Your task to perform on an android device: add a contact Image 0: 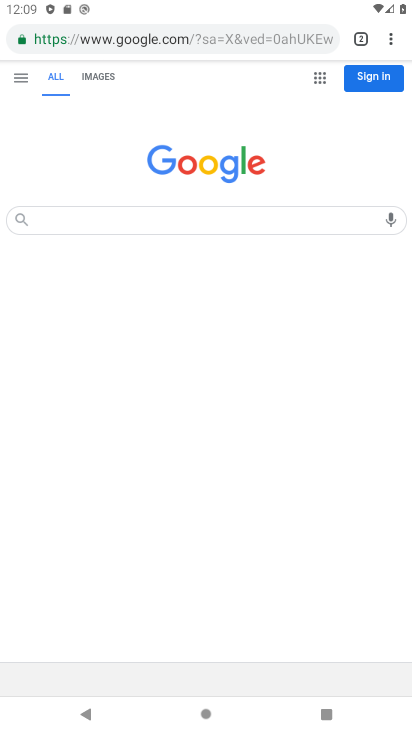
Step 0: press back button
Your task to perform on an android device: add a contact Image 1: 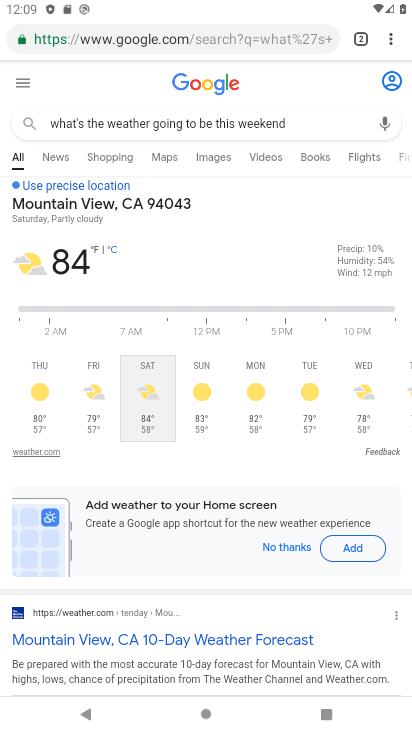
Step 1: press home button
Your task to perform on an android device: add a contact Image 2: 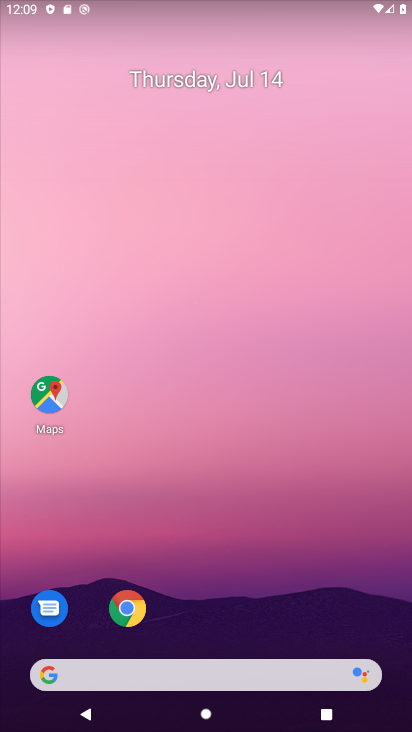
Step 2: drag from (251, 572) to (209, 238)
Your task to perform on an android device: add a contact Image 3: 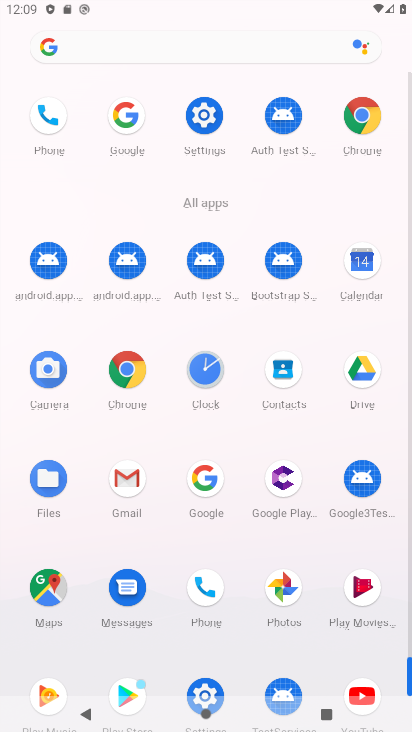
Step 3: click (279, 362)
Your task to perform on an android device: add a contact Image 4: 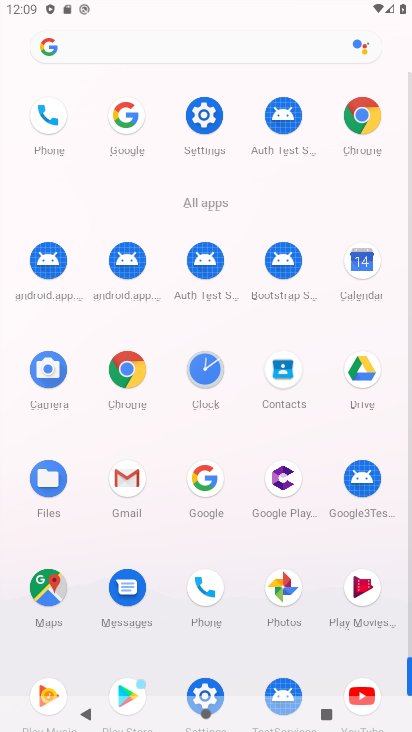
Step 4: click (281, 362)
Your task to perform on an android device: add a contact Image 5: 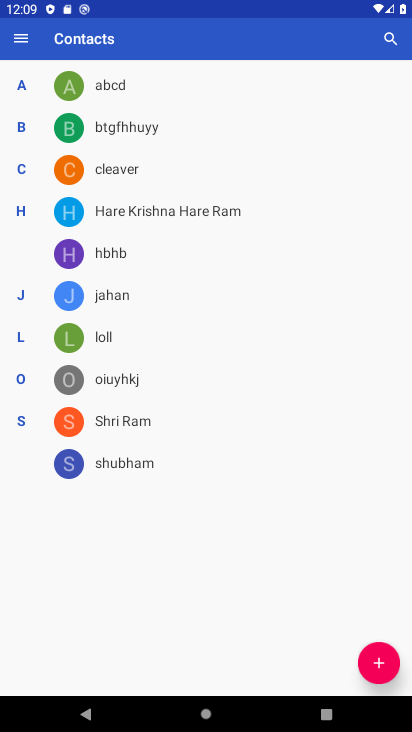
Step 5: click (383, 663)
Your task to perform on an android device: add a contact Image 6: 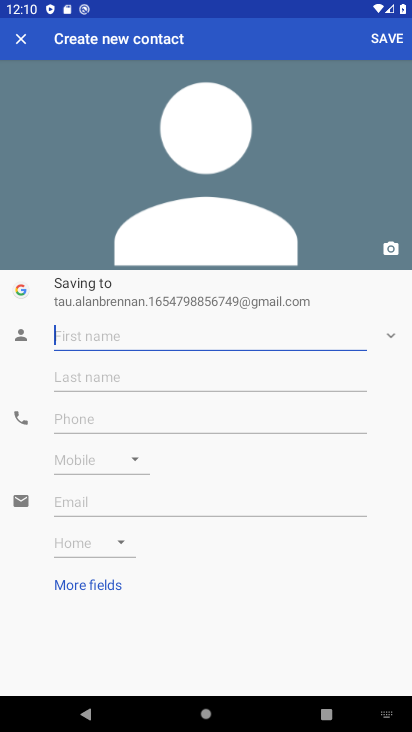
Step 6: type "bvdhbkjhzdb"
Your task to perform on an android device: add a contact Image 7: 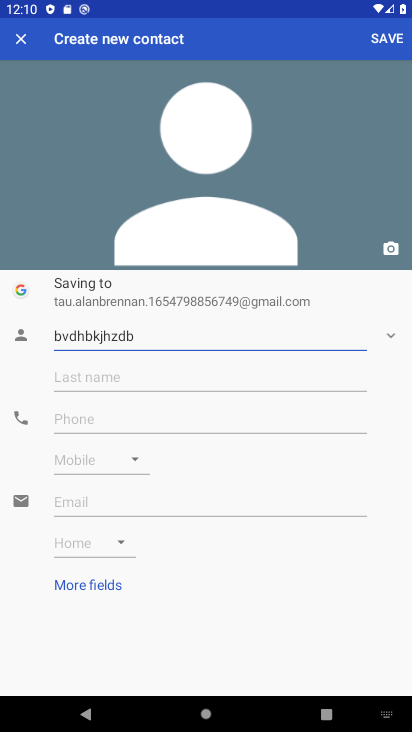
Step 7: click (80, 416)
Your task to perform on an android device: add a contact Image 8: 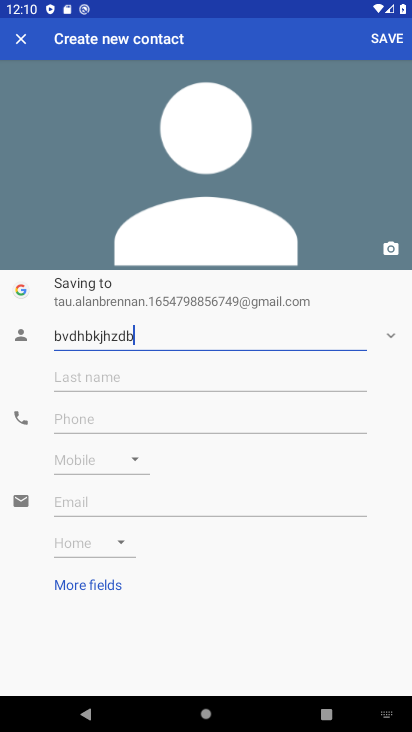
Step 8: click (80, 416)
Your task to perform on an android device: add a contact Image 9: 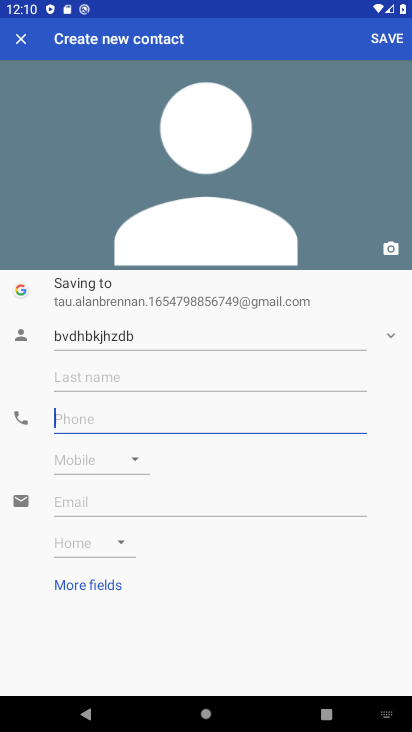
Step 9: click (80, 416)
Your task to perform on an android device: add a contact Image 10: 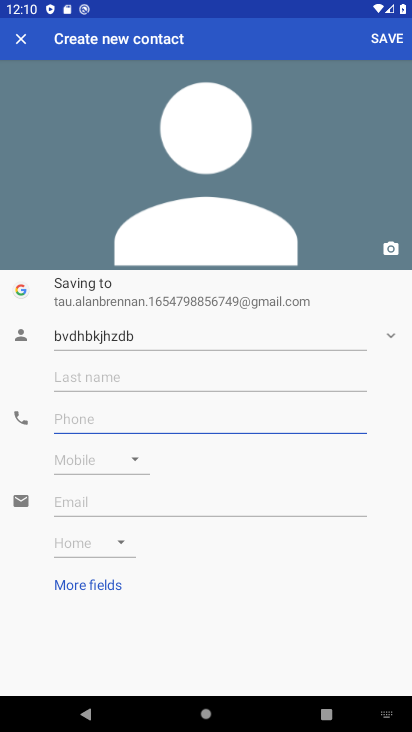
Step 10: click (80, 416)
Your task to perform on an android device: add a contact Image 11: 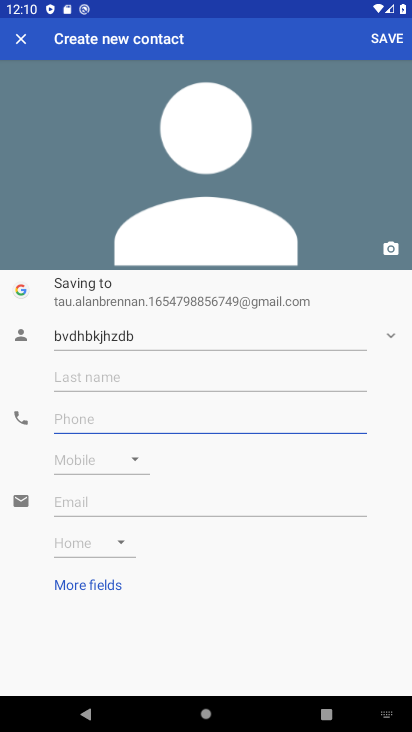
Step 11: type "57987895679659"
Your task to perform on an android device: add a contact Image 12: 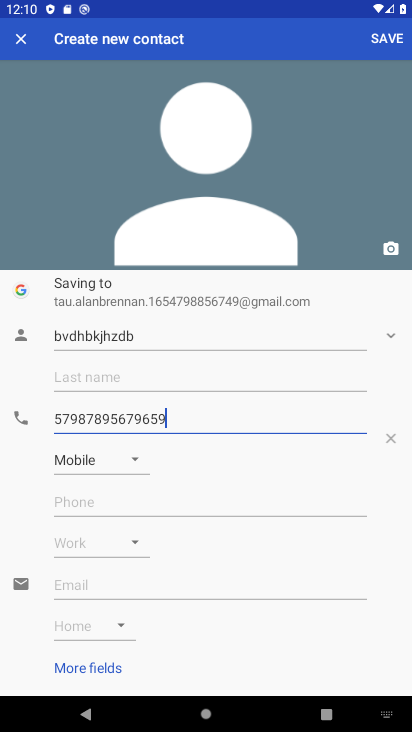
Step 12: click (386, 37)
Your task to perform on an android device: add a contact Image 13: 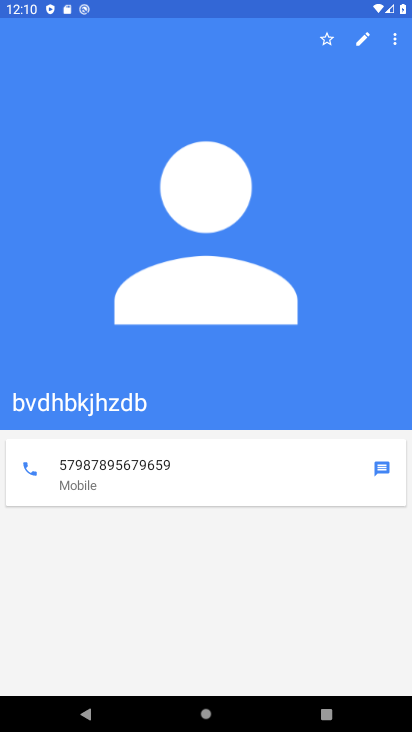
Step 13: task complete